Your task to perform on an android device: check data usage Image 0: 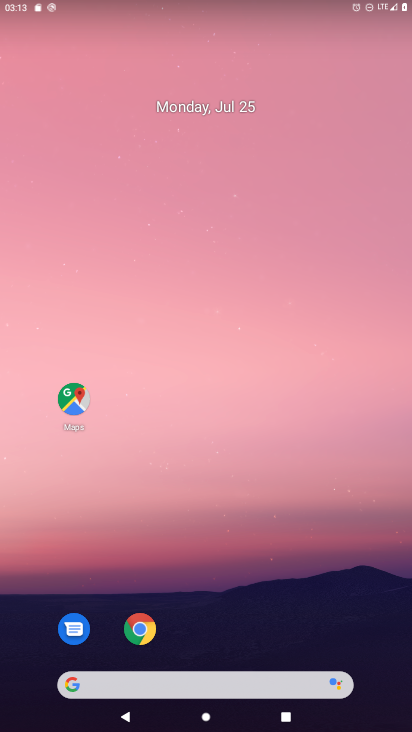
Step 0: drag from (246, 5) to (220, 448)
Your task to perform on an android device: check data usage Image 1: 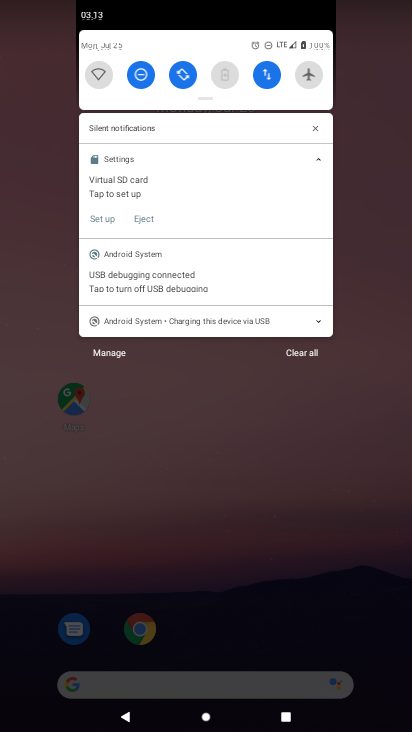
Step 1: click (263, 80)
Your task to perform on an android device: check data usage Image 2: 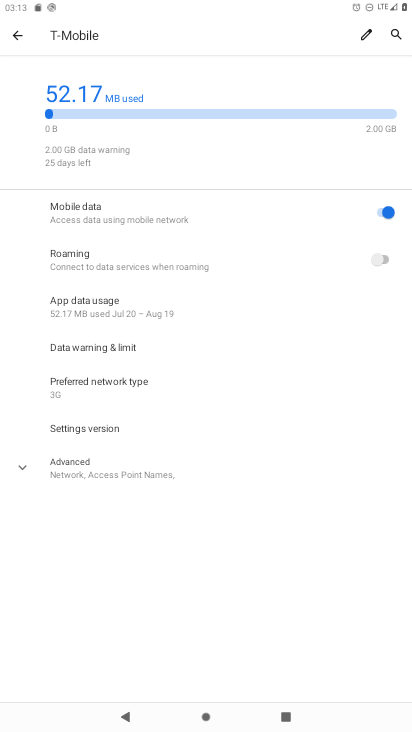
Step 2: task complete